Your task to perform on an android device: Open display settings Image 0: 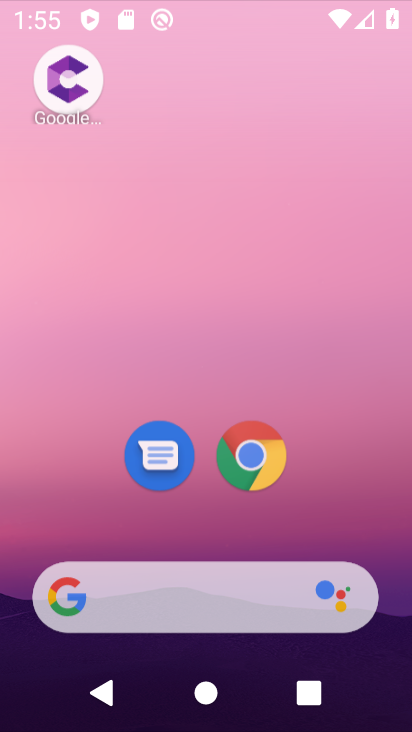
Step 0: click (334, 144)
Your task to perform on an android device: Open display settings Image 1: 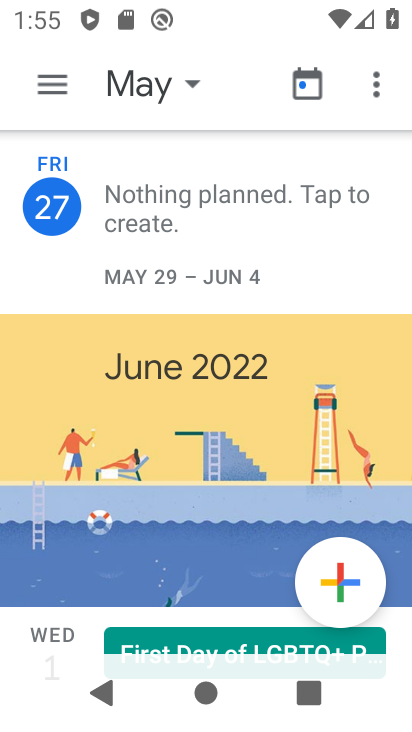
Step 1: press home button
Your task to perform on an android device: Open display settings Image 2: 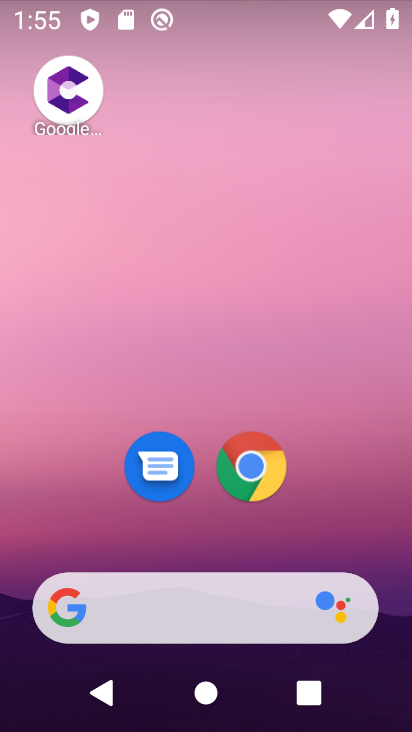
Step 2: drag from (372, 534) to (325, 93)
Your task to perform on an android device: Open display settings Image 3: 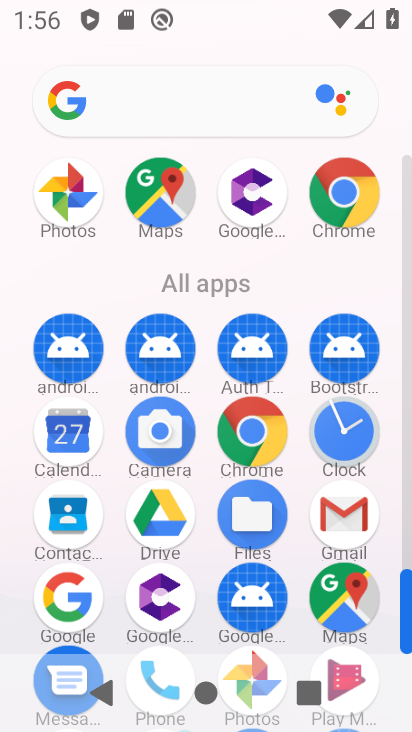
Step 3: click (214, 246)
Your task to perform on an android device: Open display settings Image 4: 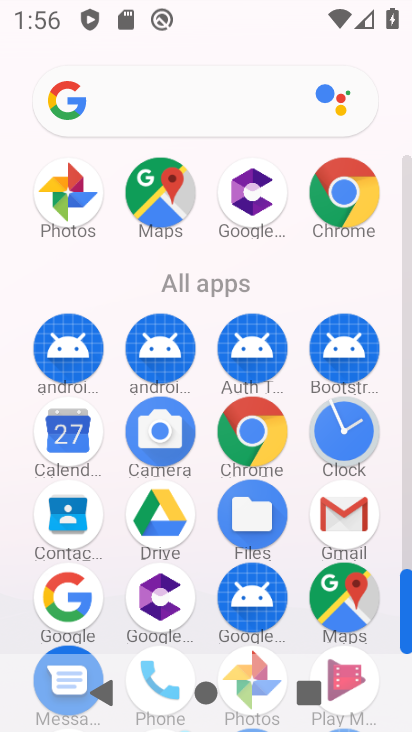
Step 4: drag from (221, 608) to (211, 308)
Your task to perform on an android device: Open display settings Image 5: 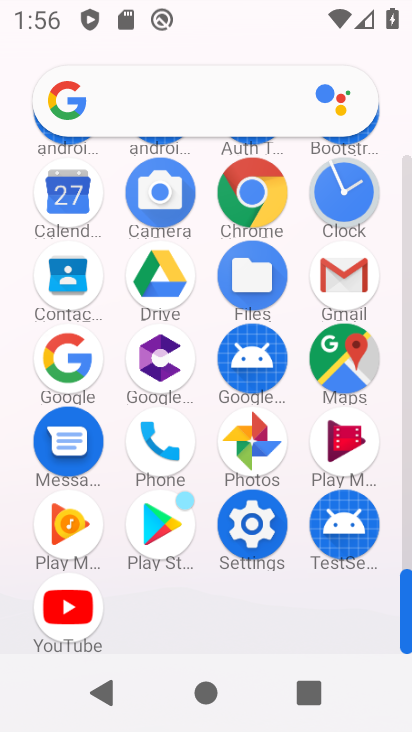
Step 5: click (248, 559)
Your task to perform on an android device: Open display settings Image 6: 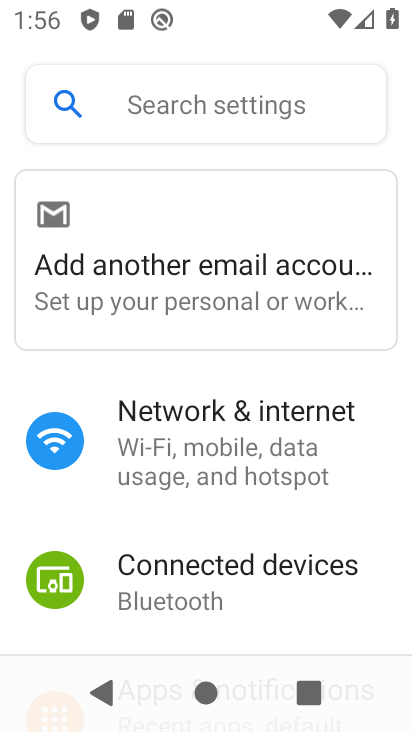
Step 6: drag from (250, 597) to (247, 329)
Your task to perform on an android device: Open display settings Image 7: 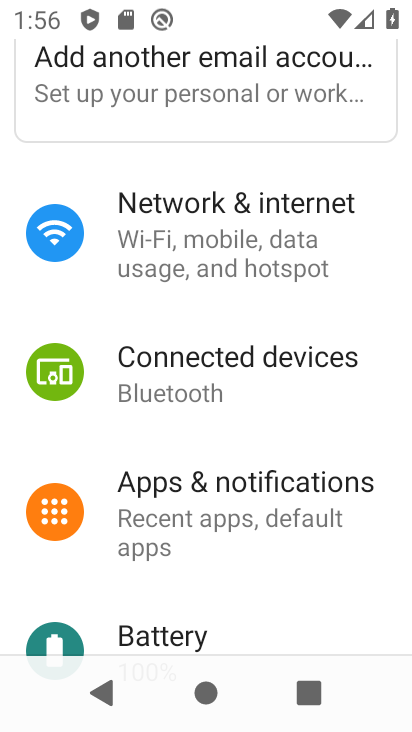
Step 7: drag from (272, 585) to (307, 308)
Your task to perform on an android device: Open display settings Image 8: 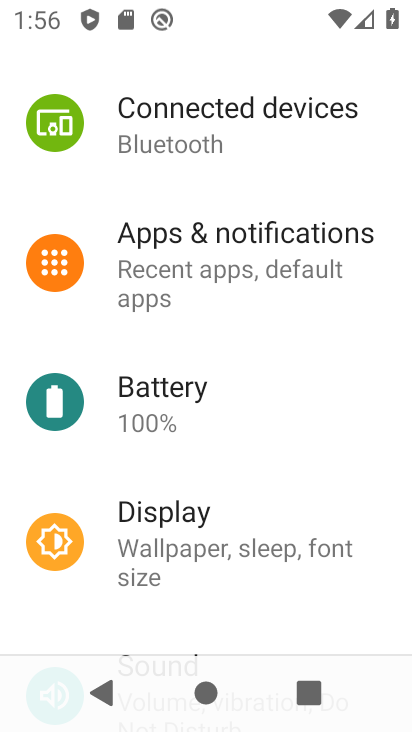
Step 8: click (245, 491)
Your task to perform on an android device: Open display settings Image 9: 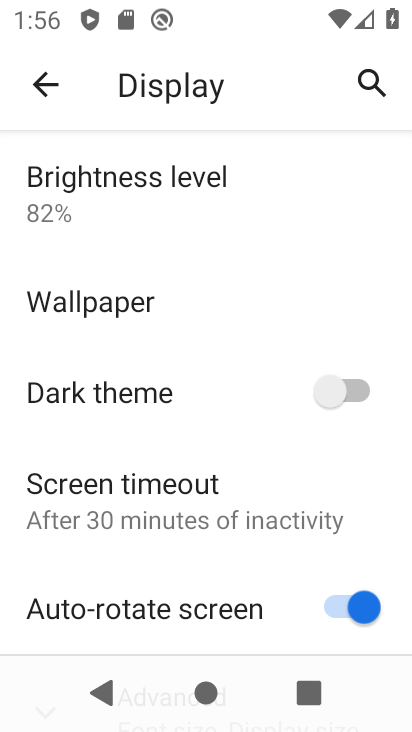
Step 9: drag from (243, 569) to (234, 205)
Your task to perform on an android device: Open display settings Image 10: 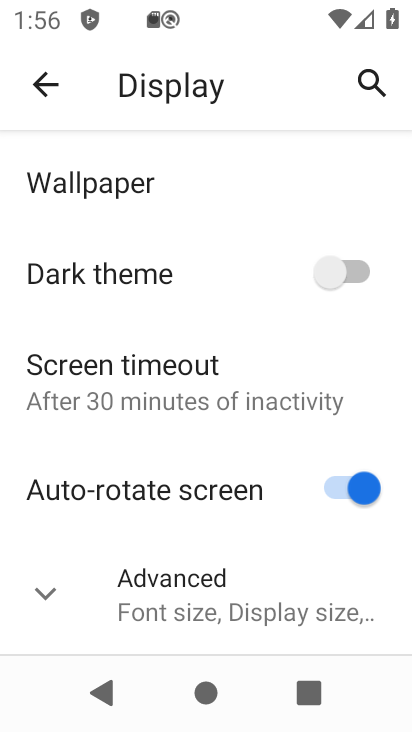
Step 10: drag from (208, 543) to (209, 220)
Your task to perform on an android device: Open display settings Image 11: 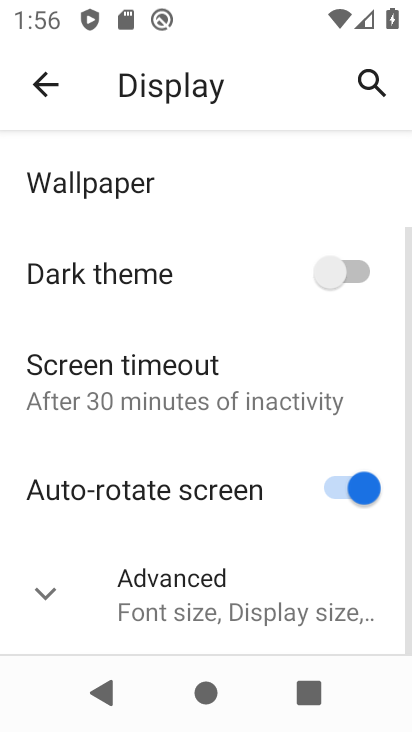
Step 11: click (158, 580)
Your task to perform on an android device: Open display settings Image 12: 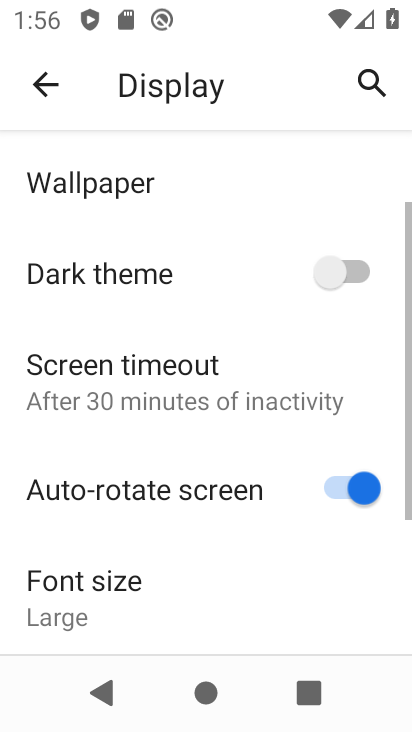
Step 12: task complete